Your task to perform on an android device: Open privacy settings Image 0: 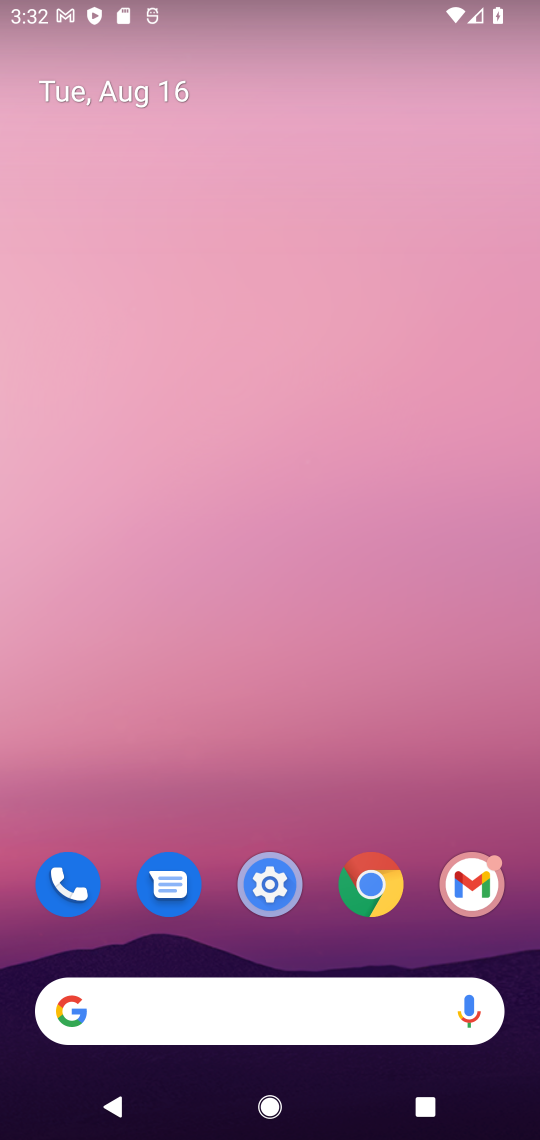
Step 0: click (268, 883)
Your task to perform on an android device: Open privacy settings Image 1: 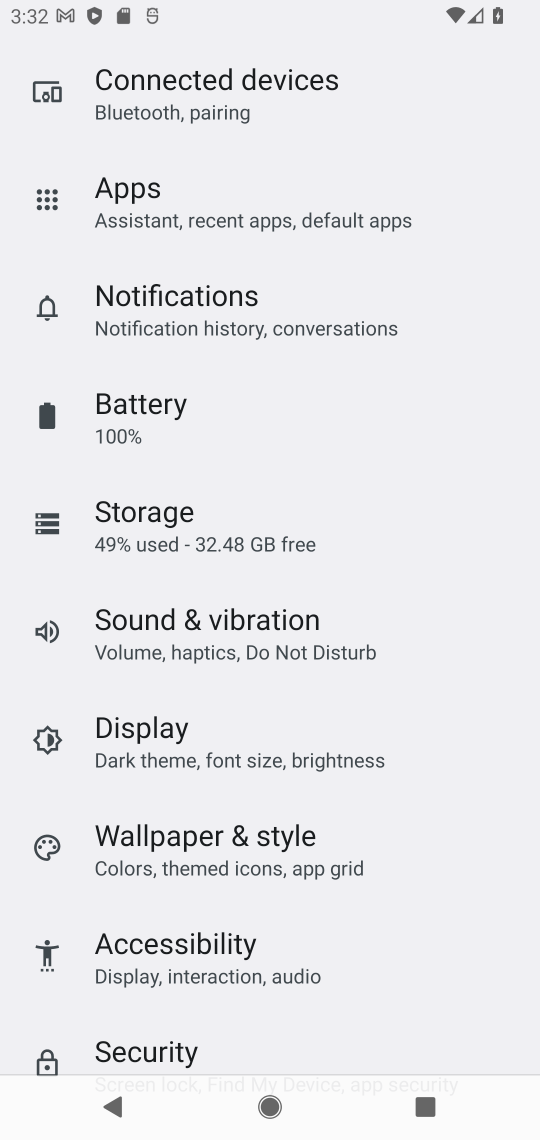
Step 1: drag from (308, 978) to (353, 278)
Your task to perform on an android device: Open privacy settings Image 2: 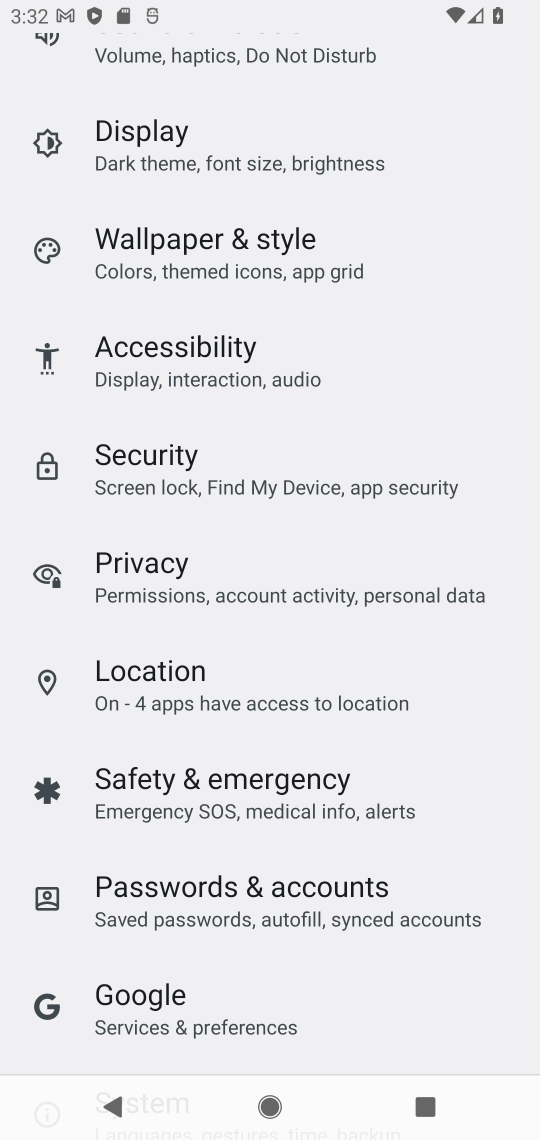
Step 2: click (206, 581)
Your task to perform on an android device: Open privacy settings Image 3: 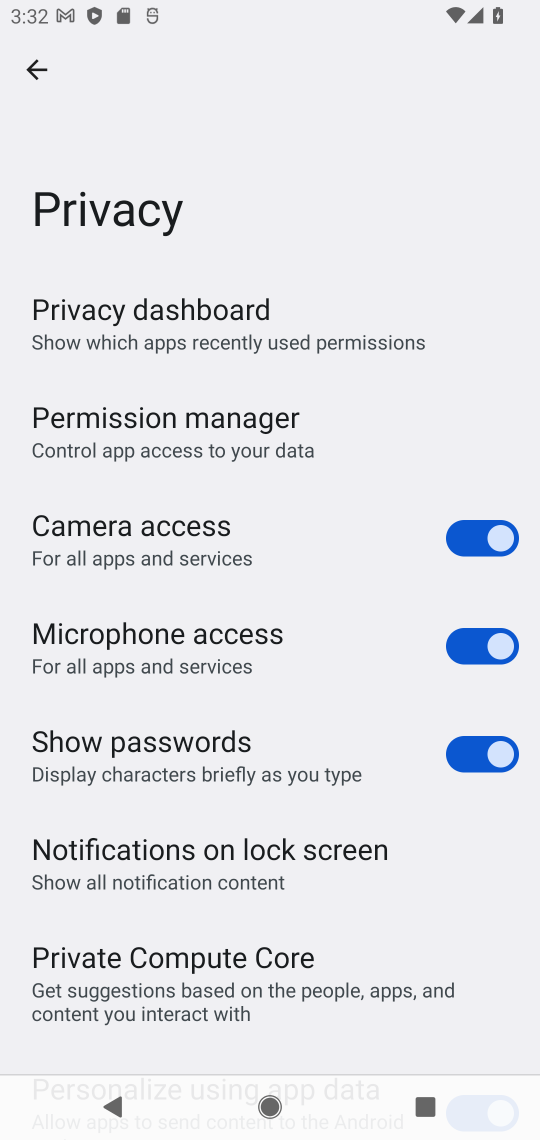
Step 3: task complete